Your task to perform on an android device: Go to internet settings Image 0: 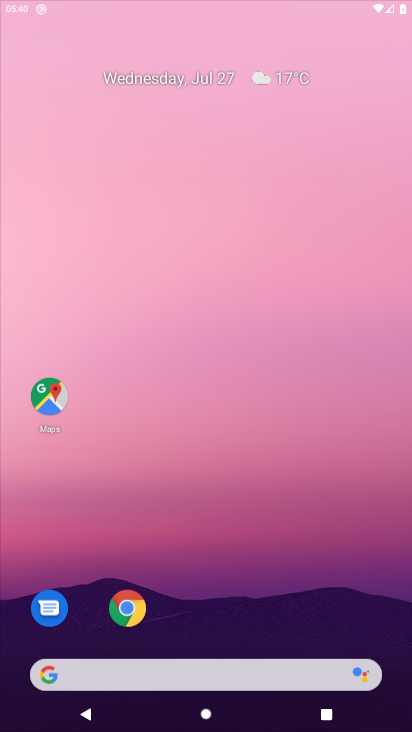
Step 0: press home button
Your task to perform on an android device: Go to internet settings Image 1: 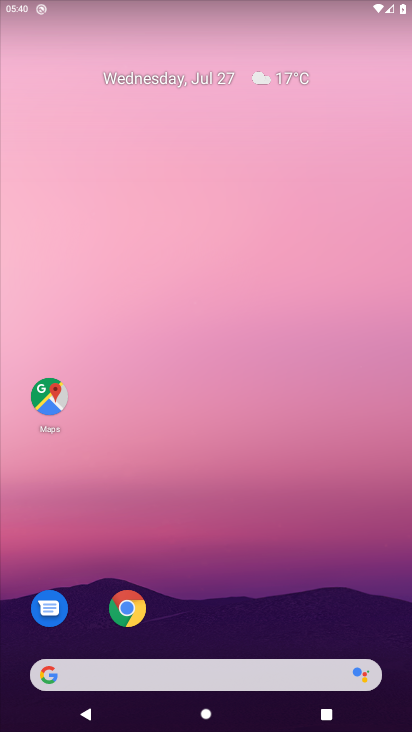
Step 1: drag from (247, 632) to (343, 122)
Your task to perform on an android device: Go to internet settings Image 2: 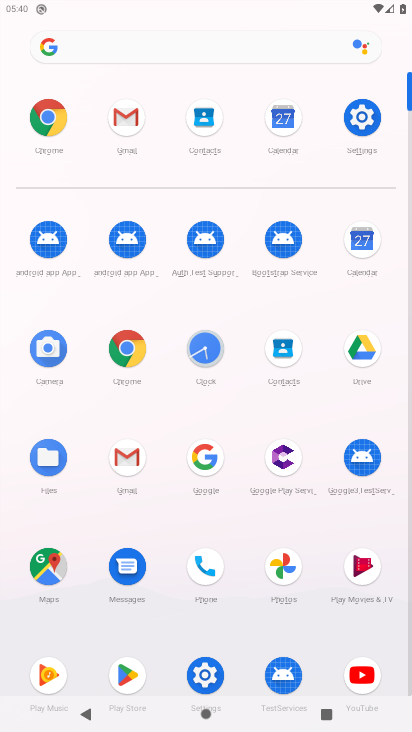
Step 2: click (359, 115)
Your task to perform on an android device: Go to internet settings Image 3: 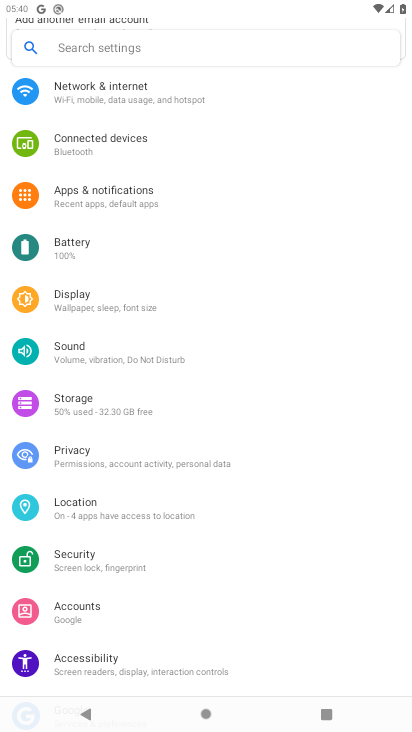
Step 3: click (126, 102)
Your task to perform on an android device: Go to internet settings Image 4: 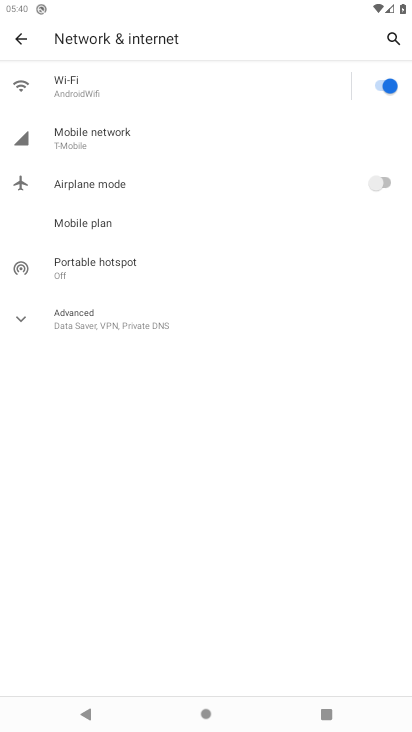
Step 4: task complete